Your task to perform on an android device: Go to Google Image 0: 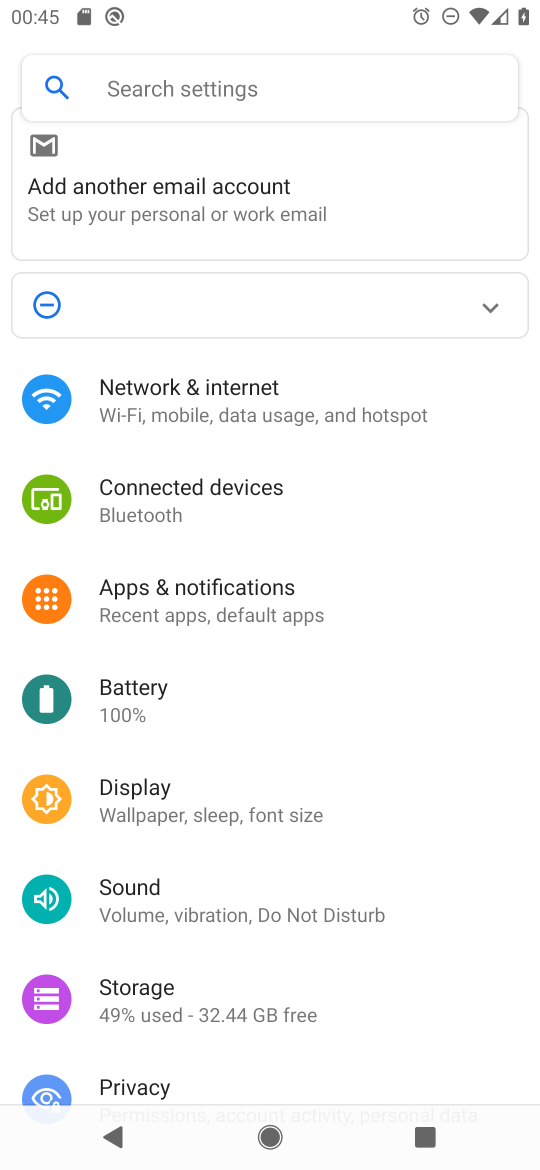
Step 0: press home button
Your task to perform on an android device: Go to Google Image 1: 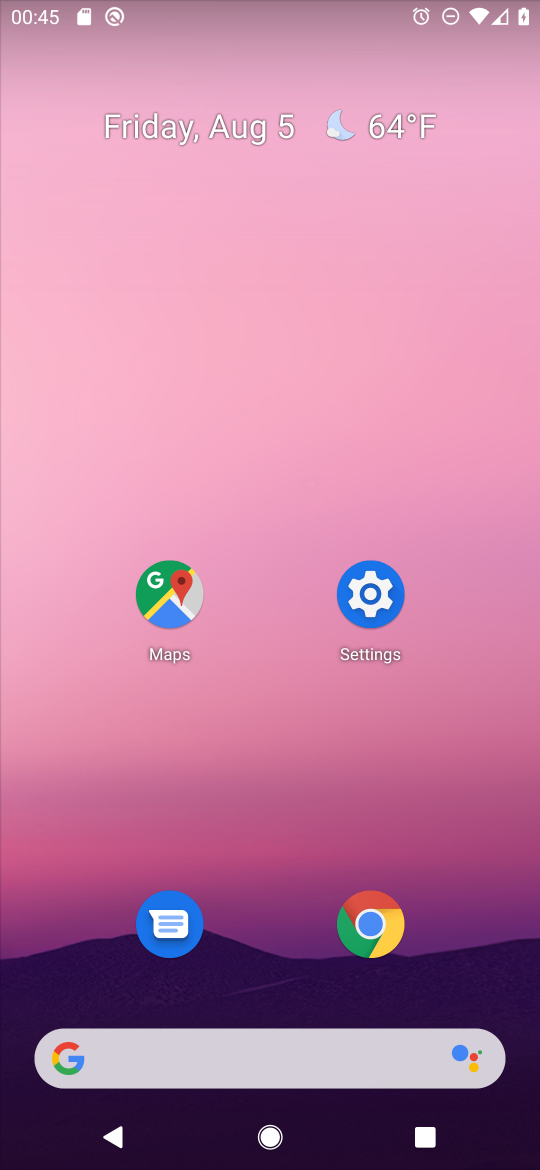
Step 1: drag from (279, 1049) to (379, 207)
Your task to perform on an android device: Go to Google Image 2: 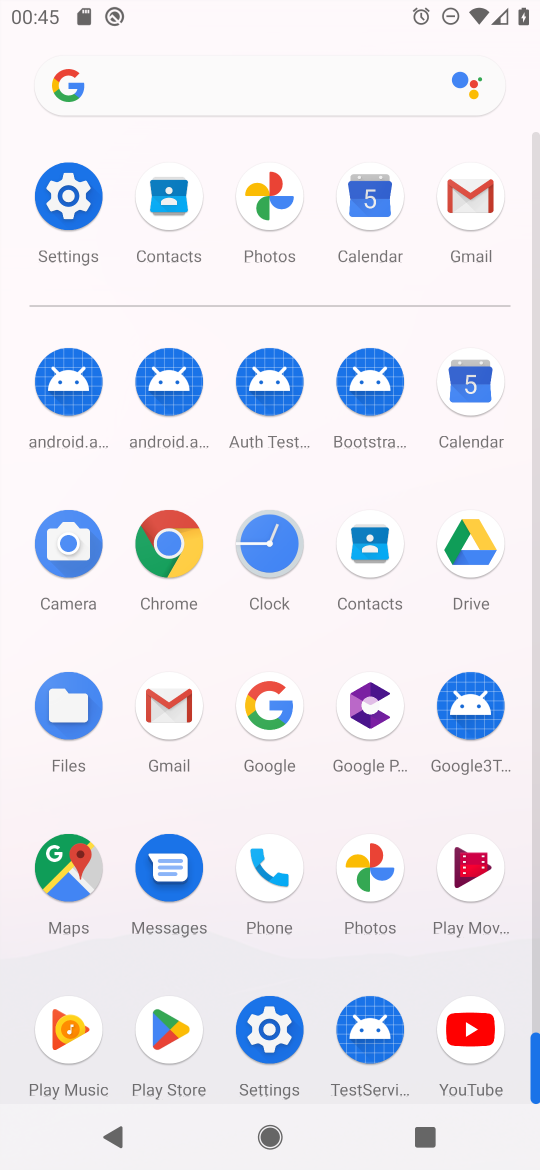
Step 2: click (279, 716)
Your task to perform on an android device: Go to Google Image 3: 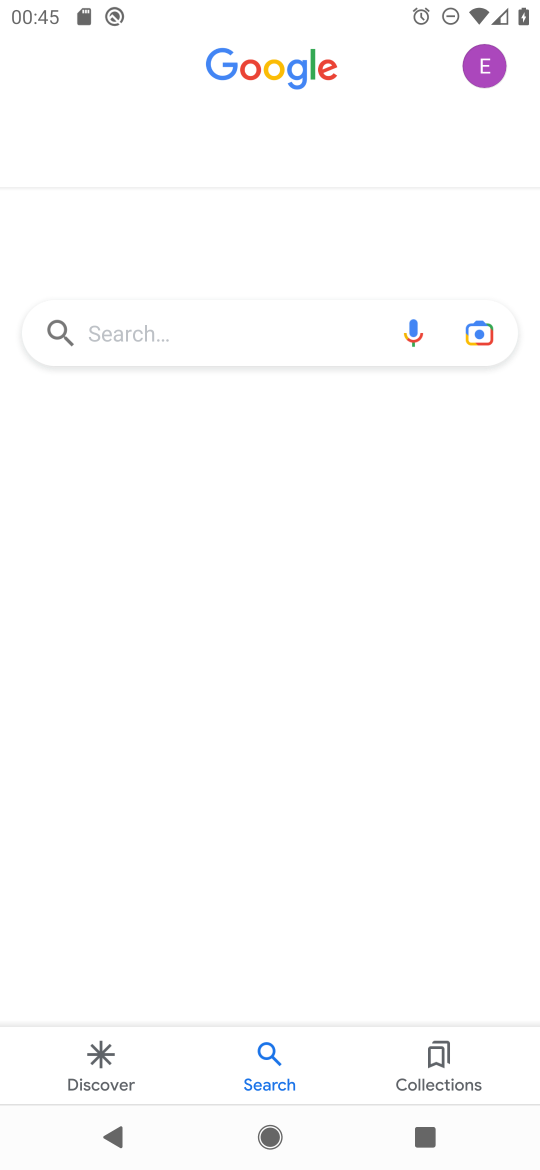
Step 3: task complete